Your task to perform on an android device: Open Reddit.com Image 0: 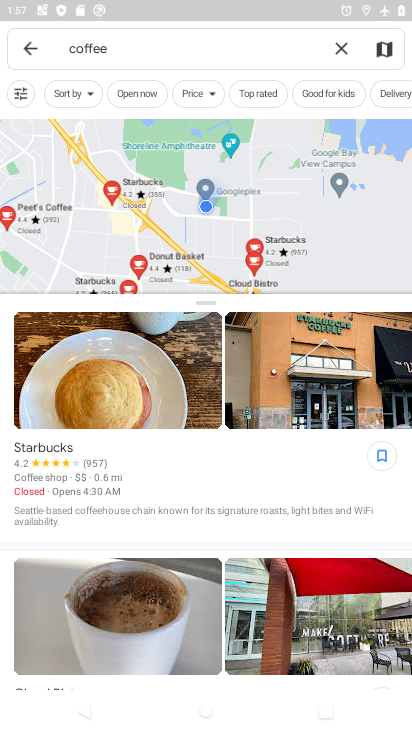
Step 0: press home button
Your task to perform on an android device: Open Reddit.com Image 1: 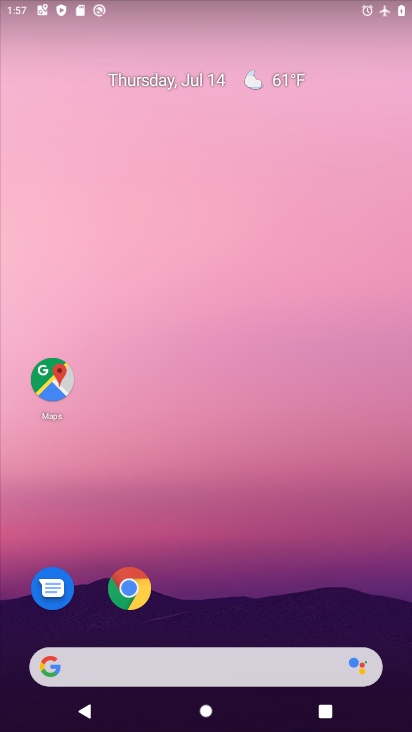
Step 1: drag from (246, 648) to (237, 253)
Your task to perform on an android device: Open Reddit.com Image 2: 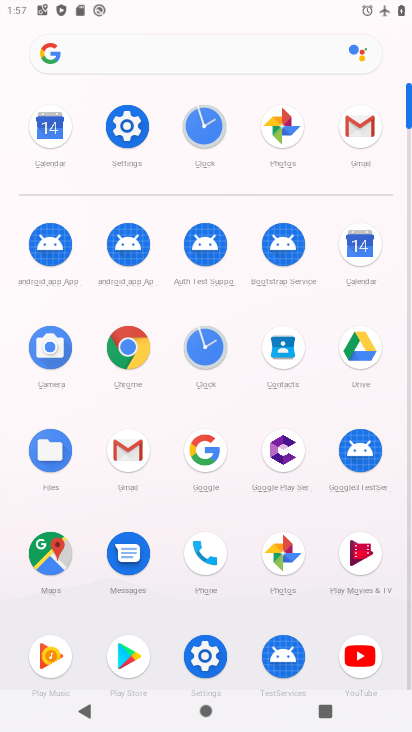
Step 2: click (127, 343)
Your task to perform on an android device: Open Reddit.com Image 3: 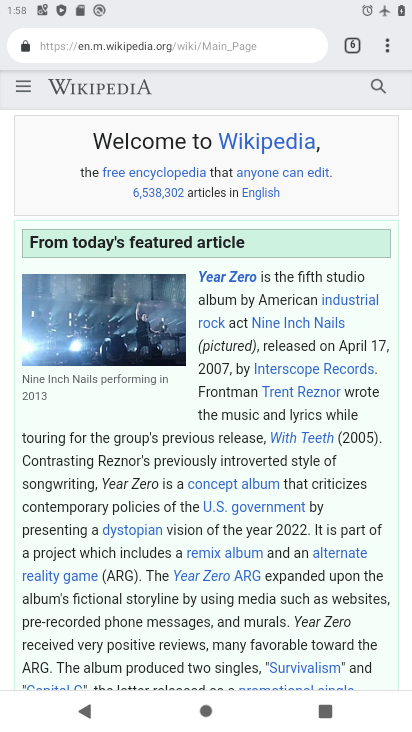
Step 3: click (394, 51)
Your task to perform on an android device: Open Reddit.com Image 4: 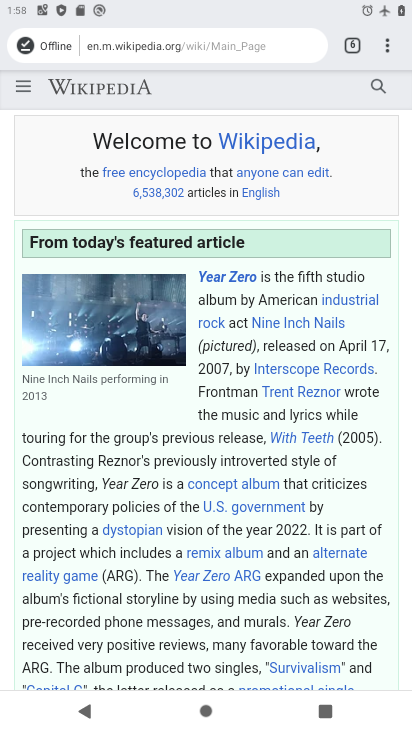
Step 4: click (381, 36)
Your task to perform on an android device: Open Reddit.com Image 5: 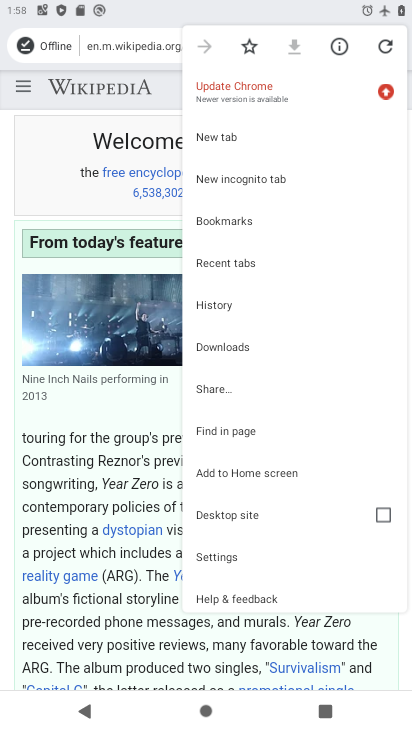
Step 5: click (218, 145)
Your task to perform on an android device: Open Reddit.com Image 6: 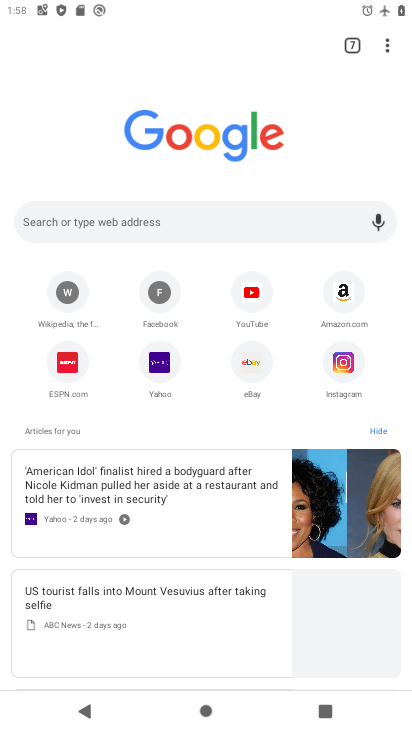
Step 6: click (205, 207)
Your task to perform on an android device: Open Reddit.com Image 7: 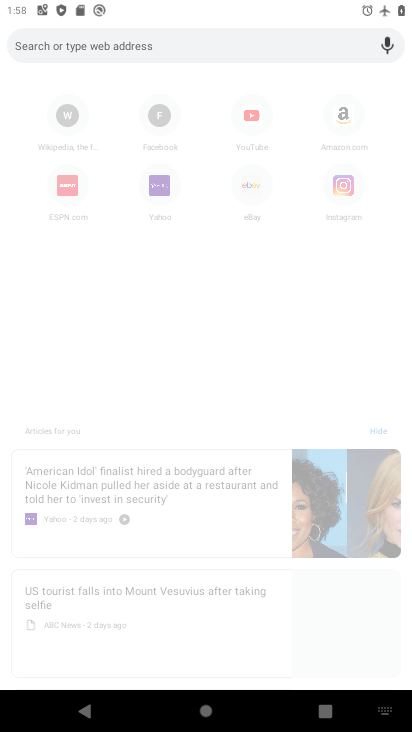
Step 7: type " Reddit.com "
Your task to perform on an android device: Open Reddit.com Image 8: 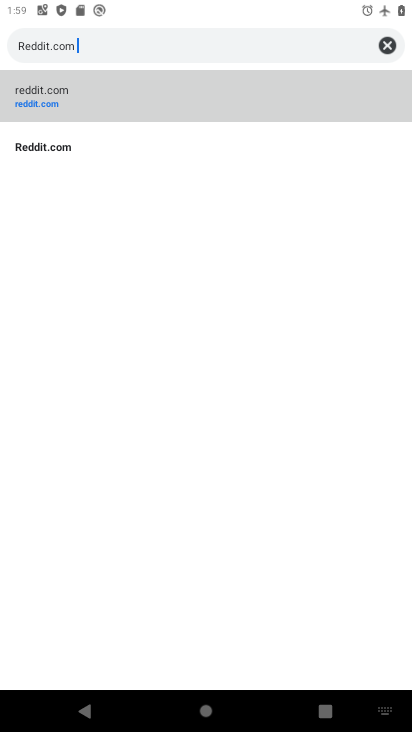
Step 8: click (179, 76)
Your task to perform on an android device: Open Reddit.com Image 9: 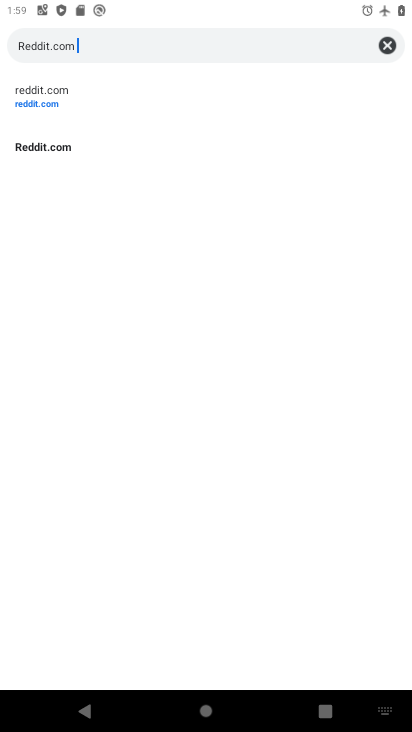
Step 9: click (42, 104)
Your task to perform on an android device: Open Reddit.com Image 10: 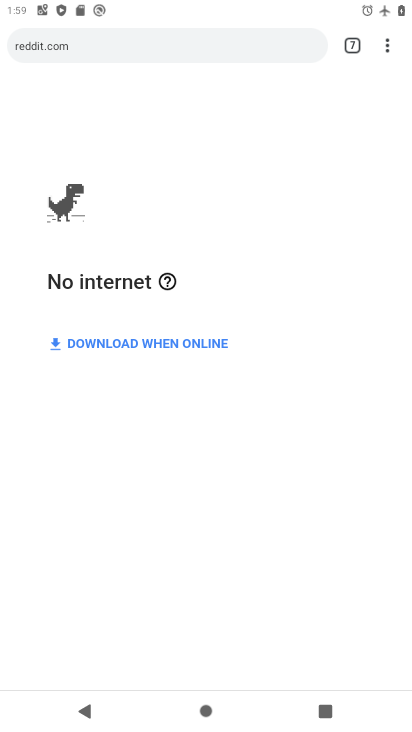
Step 10: task complete